Your task to perform on an android device: Open calendar and show me the third week of next month Image 0: 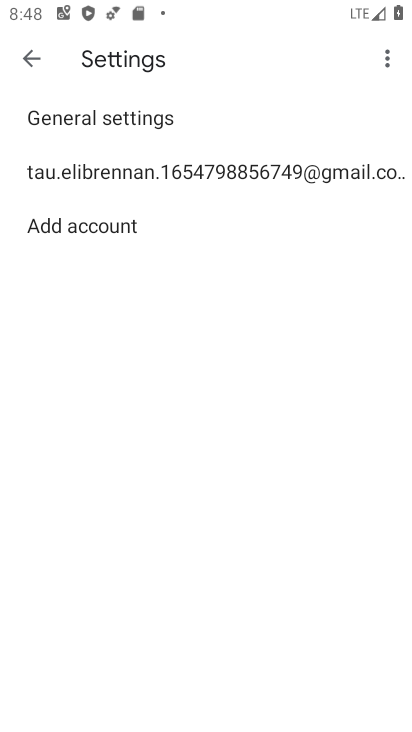
Step 0: press home button
Your task to perform on an android device: Open calendar and show me the third week of next month Image 1: 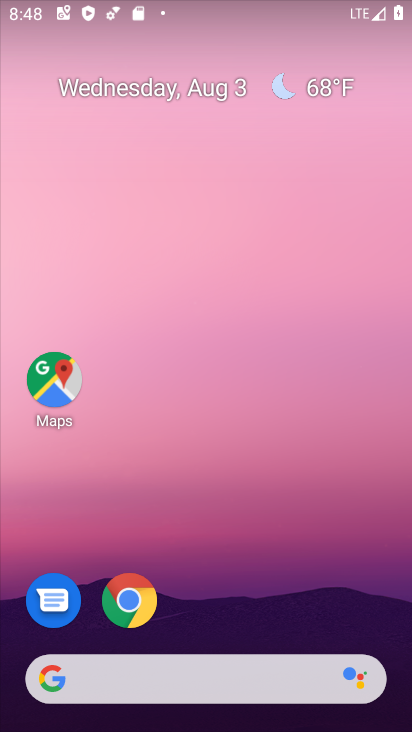
Step 1: drag from (191, 635) to (205, 165)
Your task to perform on an android device: Open calendar and show me the third week of next month Image 2: 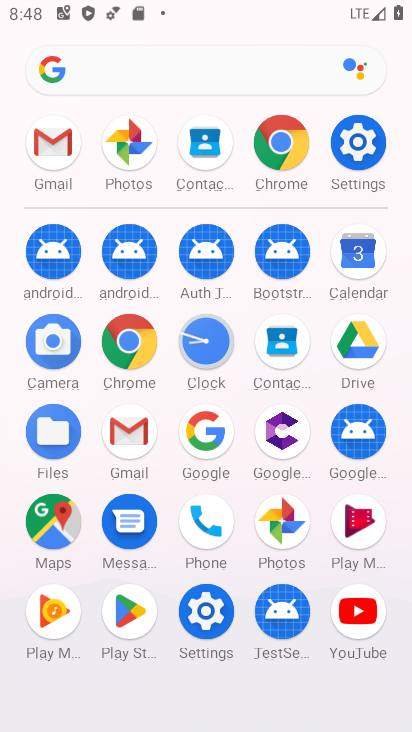
Step 2: click (365, 254)
Your task to perform on an android device: Open calendar and show me the third week of next month Image 3: 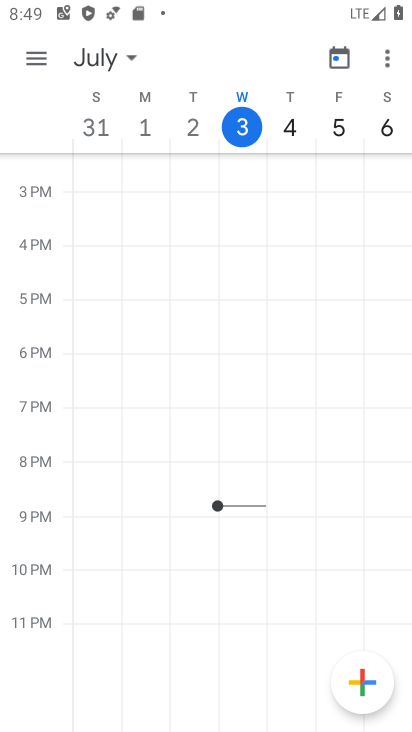
Step 3: click (107, 61)
Your task to perform on an android device: Open calendar and show me the third week of next month Image 4: 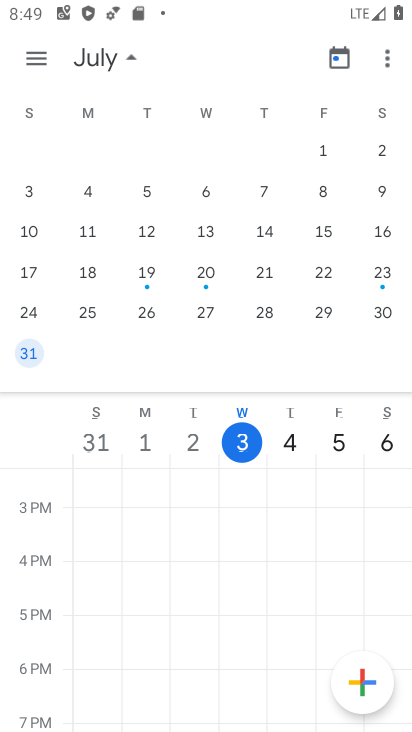
Step 4: drag from (327, 250) to (26, 203)
Your task to perform on an android device: Open calendar and show me the third week of next month Image 5: 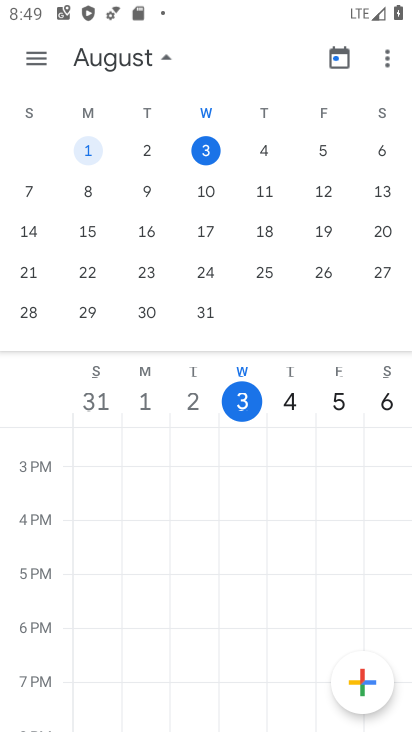
Step 5: drag from (325, 226) to (19, 204)
Your task to perform on an android device: Open calendar and show me the third week of next month Image 6: 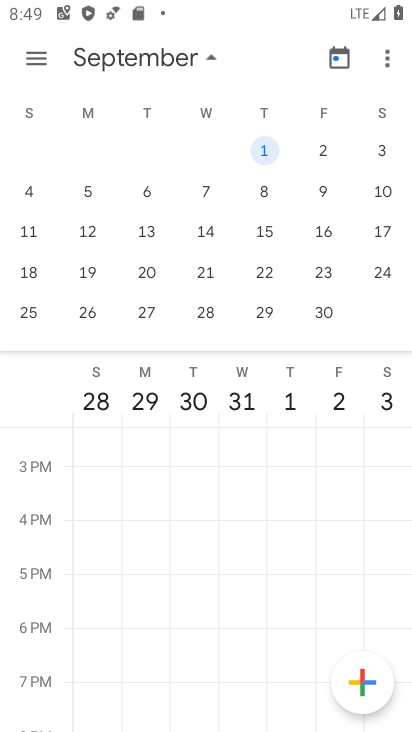
Step 6: click (203, 269)
Your task to perform on an android device: Open calendar and show me the third week of next month Image 7: 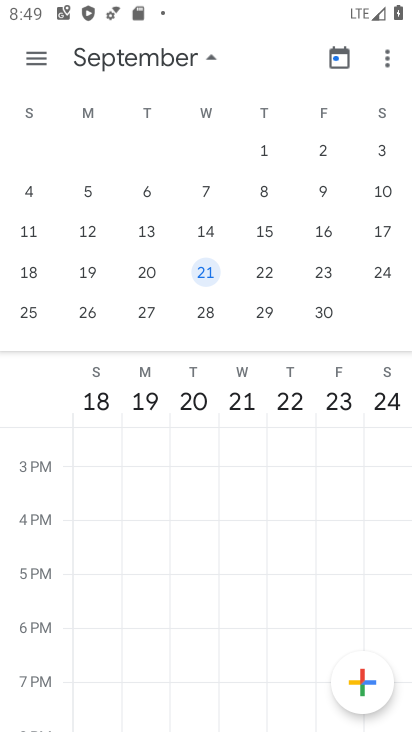
Step 7: click (27, 56)
Your task to perform on an android device: Open calendar and show me the third week of next month Image 8: 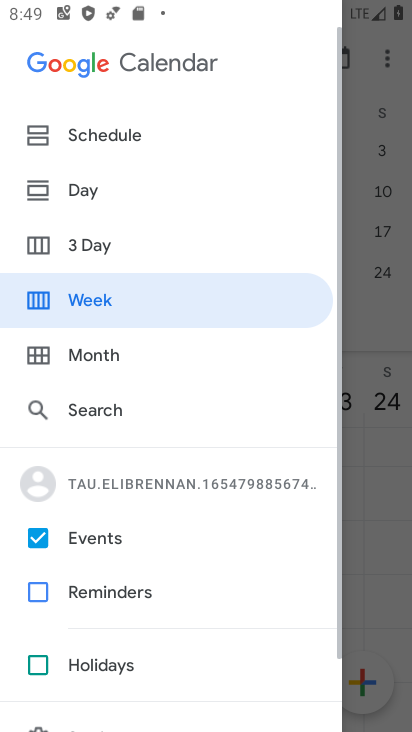
Step 8: click (106, 308)
Your task to perform on an android device: Open calendar and show me the third week of next month Image 9: 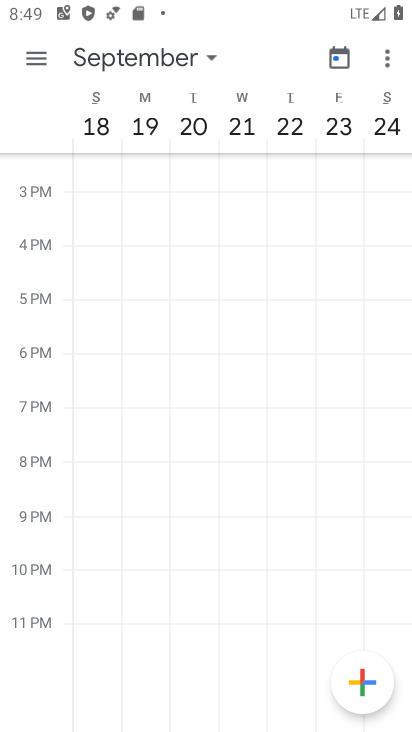
Step 9: task complete